Your task to perform on an android device: empty trash in google photos Image 0: 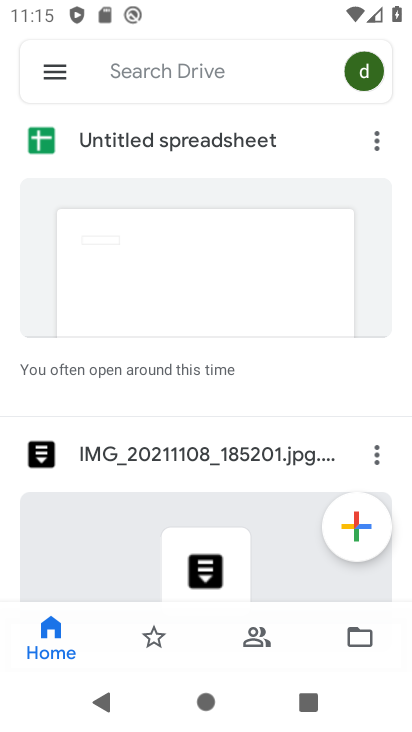
Step 0: press home button
Your task to perform on an android device: empty trash in google photos Image 1: 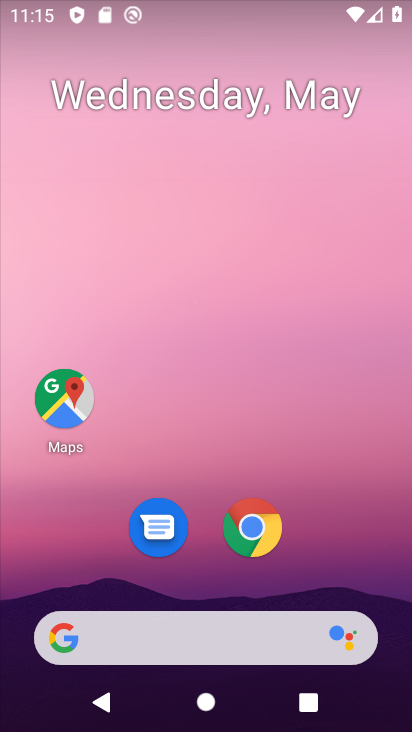
Step 1: drag from (362, 517) to (361, 123)
Your task to perform on an android device: empty trash in google photos Image 2: 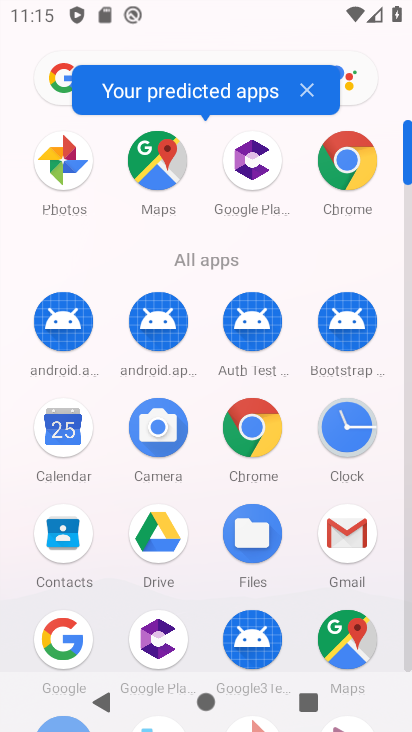
Step 2: drag from (308, 300) to (354, 62)
Your task to perform on an android device: empty trash in google photos Image 3: 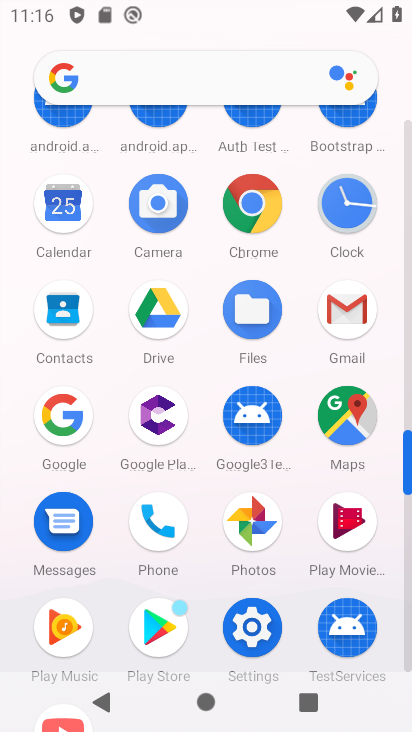
Step 3: click (264, 523)
Your task to perform on an android device: empty trash in google photos Image 4: 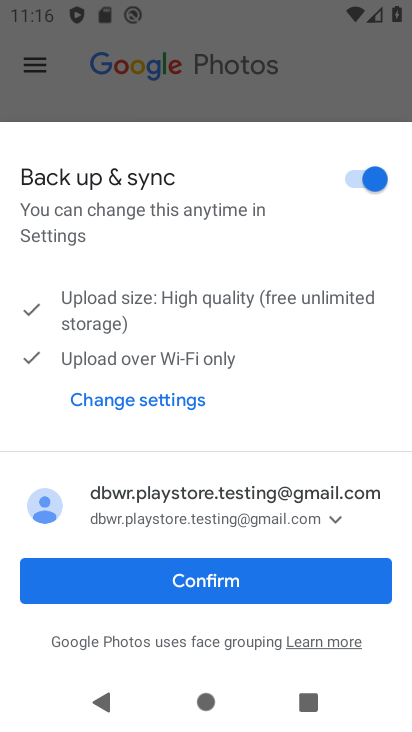
Step 4: press home button
Your task to perform on an android device: empty trash in google photos Image 5: 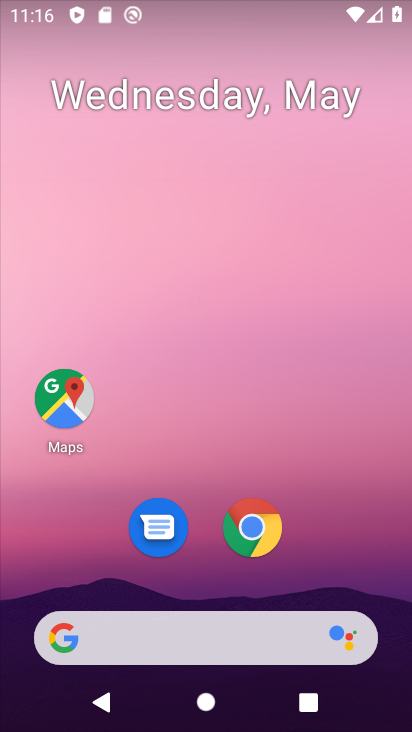
Step 5: drag from (356, 284) to (358, 192)
Your task to perform on an android device: empty trash in google photos Image 6: 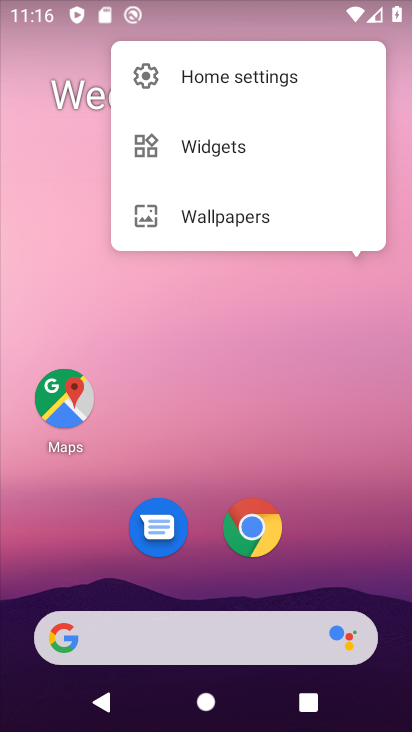
Step 6: click (303, 418)
Your task to perform on an android device: empty trash in google photos Image 7: 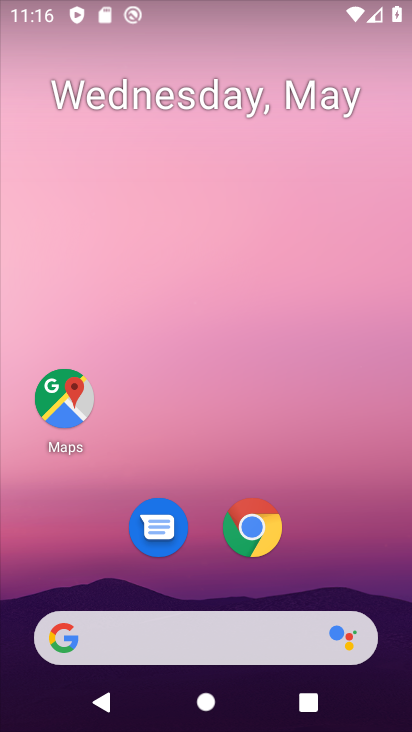
Step 7: drag from (326, 566) to (299, 87)
Your task to perform on an android device: empty trash in google photos Image 8: 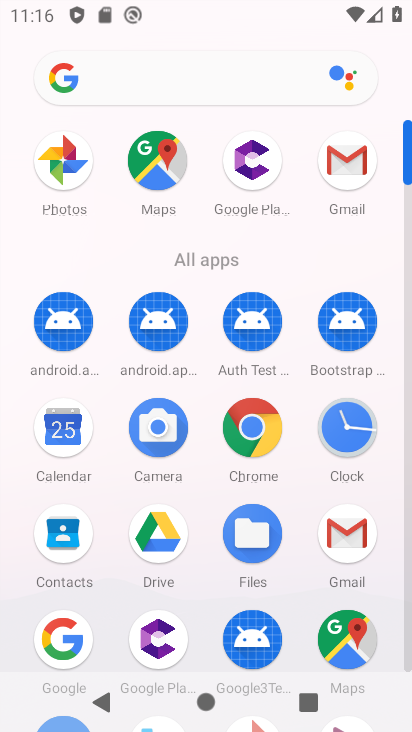
Step 8: drag from (295, 314) to (341, 36)
Your task to perform on an android device: empty trash in google photos Image 9: 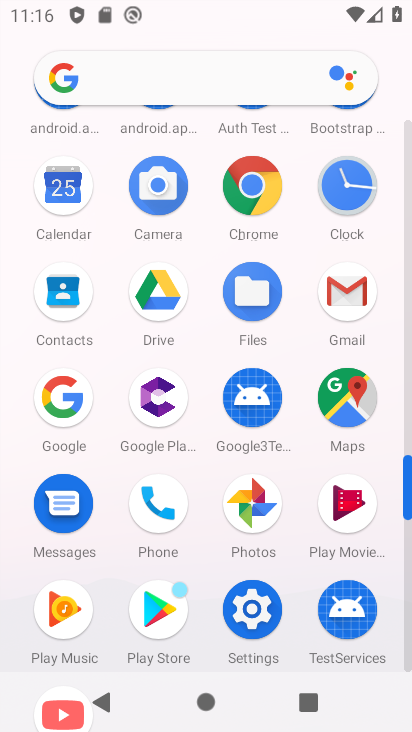
Step 9: click (244, 504)
Your task to perform on an android device: empty trash in google photos Image 10: 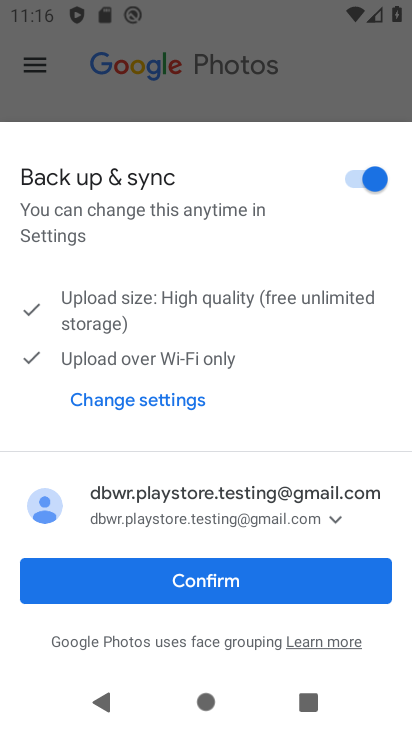
Step 10: click (334, 587)
Your task to perform on an android device: empty trash in google photos Image 11: 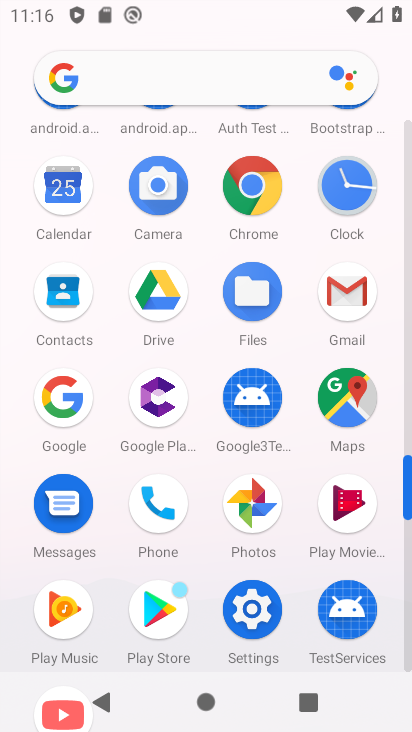
Step 11: click (253, 509)
Your task to perform on an android device: empty trash in google photos Image 12: 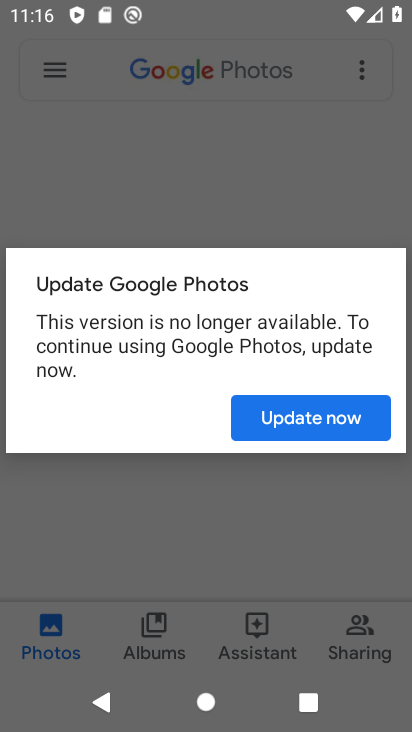
Step 12: click (288, 421)
Your task to perform on an android device: empty trash in google photos Image 13: 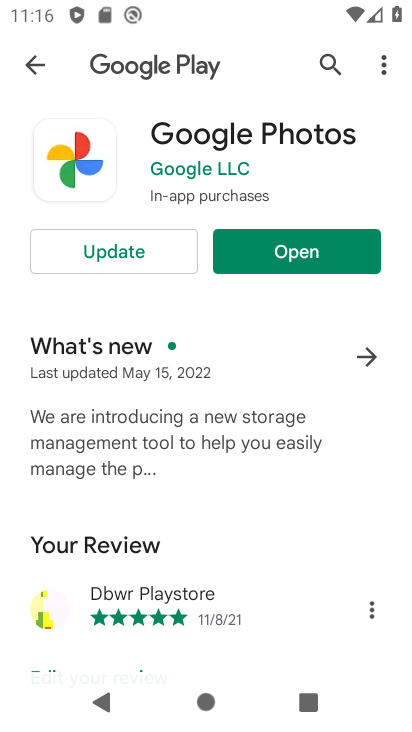
Step 13: click (81, 260)
Your task to perform on an android device: empty trash in google photos Image 14: 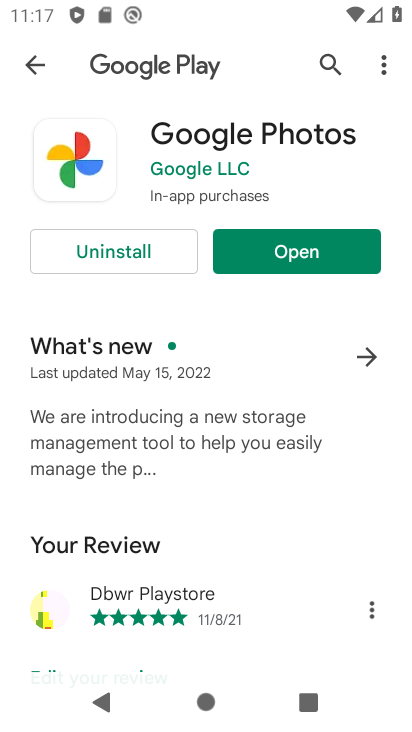
Step 14: click (290, 254)
Your task to perform on an android device: empty trash in google photos Image 15: 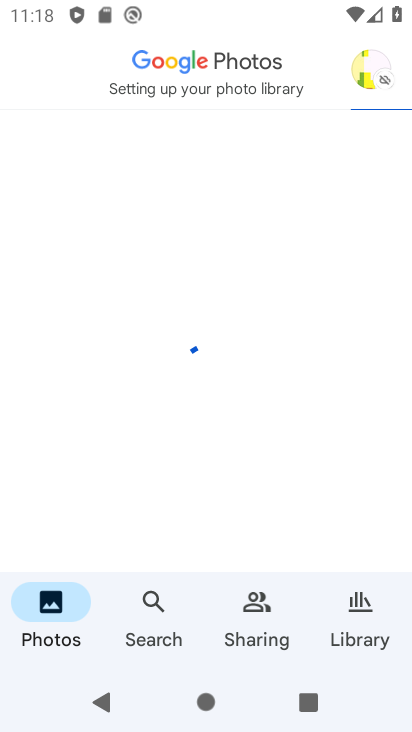
Step 15: click (360, 602)
Your task to perform on an android device: empty trash in google photos Image 16: 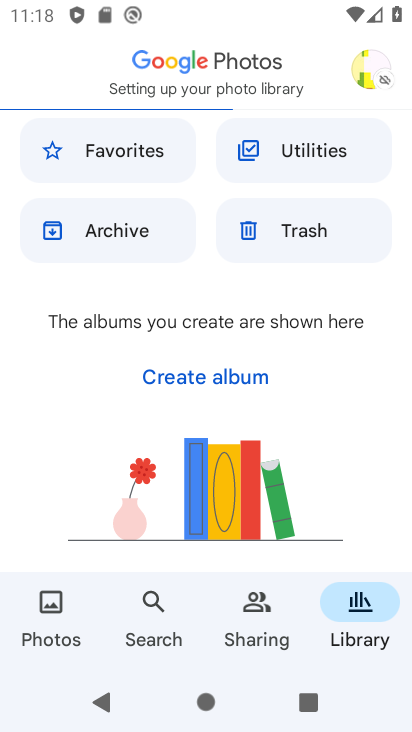
Step 16: click (244, 231)
Your task to perform on an android device: empty trash in google photos Image 17: 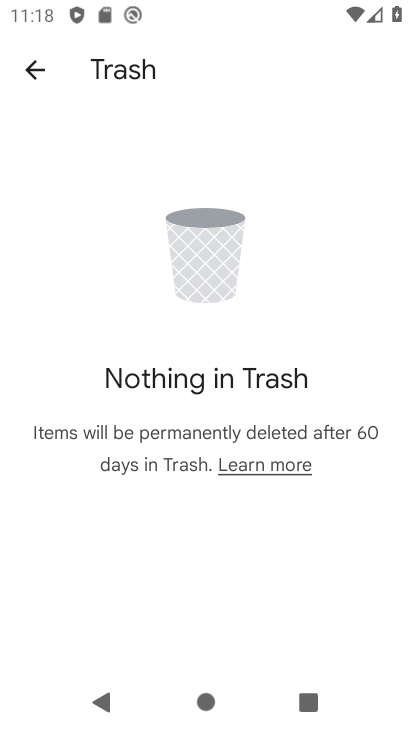
Step 17: task complete